Your task to perform on an android device: What is the news today? Image 0: 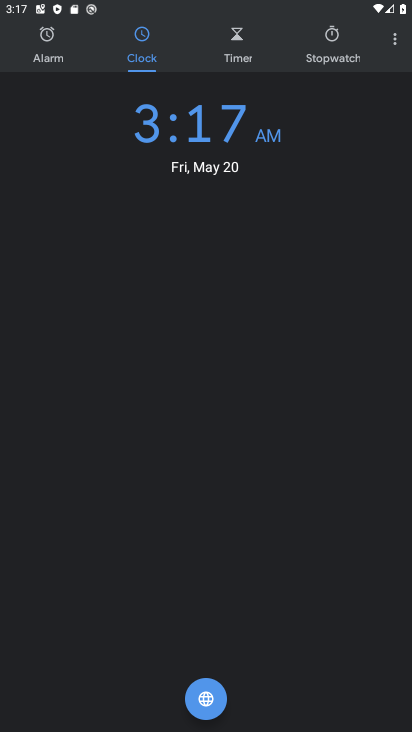
Step 0: press home button
Your task to perform on an android device: What is the news today? Image 1: 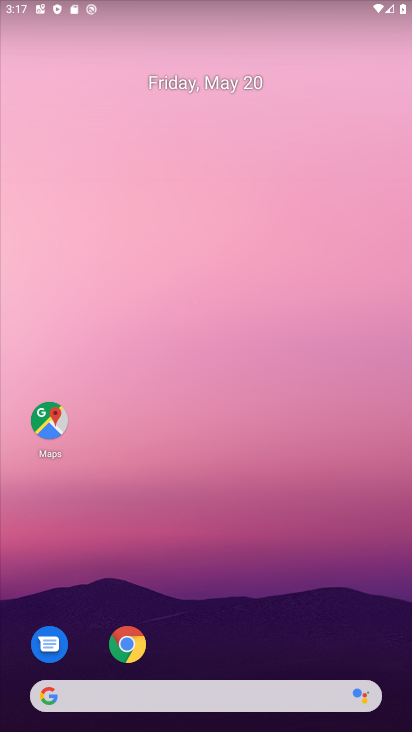
Step 1: click (242, 688)
Your task to perform on an android device: What is the news today? Image 2: 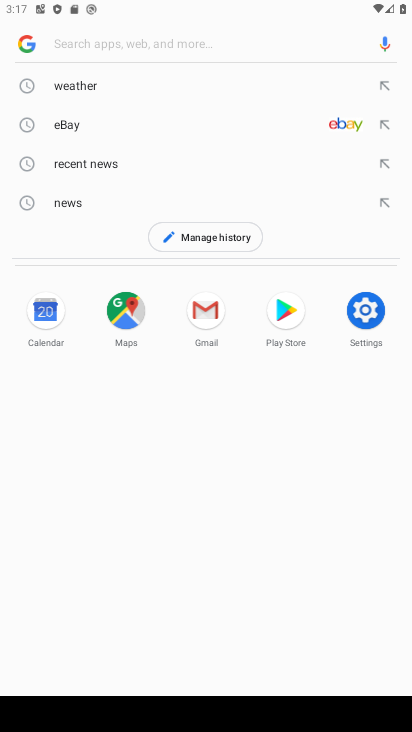
Step 2: click (94, 177)
Your task to perform on an android device: What is the news today? Image 3: 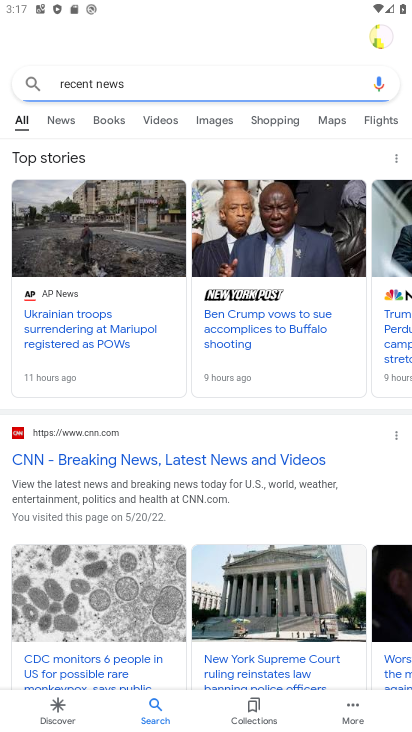
Step 3: task complete